Your task to perform on an android device: Do I have any events this weekend? Image 0: 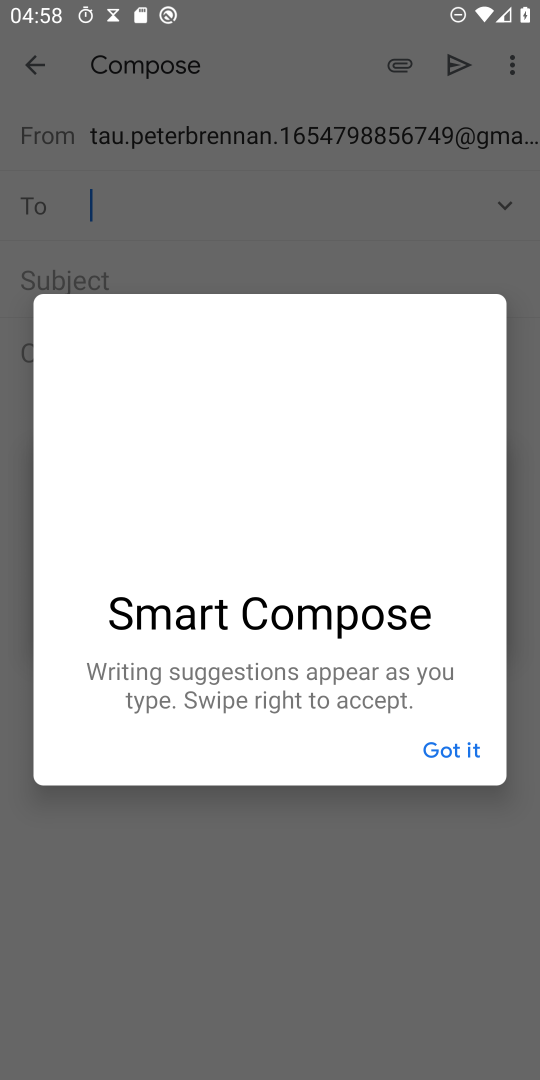
Step 0: press home button
Your task to perform on an android device: Do I have any events this weekend? Image 1: 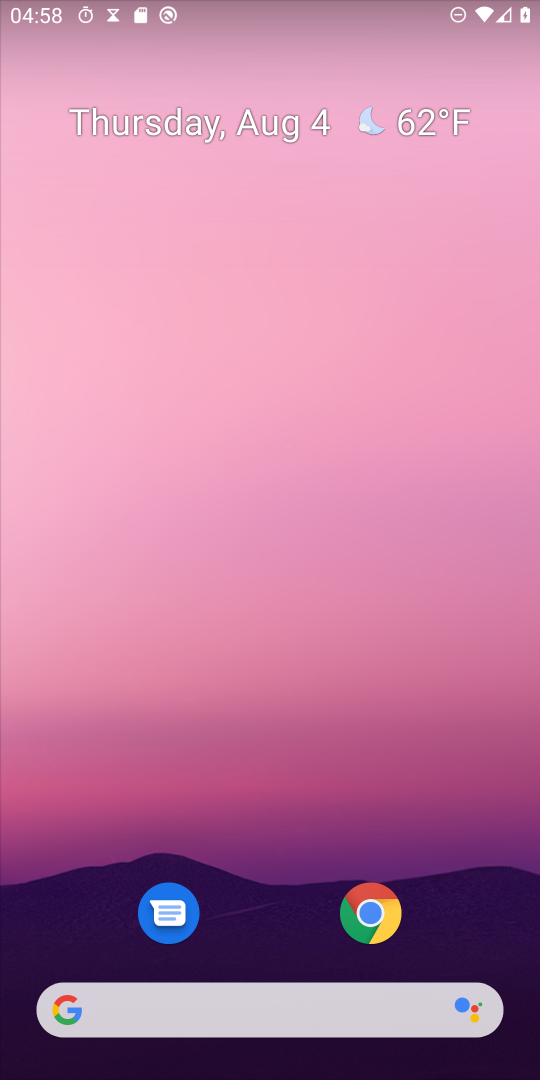
Step 1: drag from (266, 1012) to (386, 66)
Your task to perform on an android device: Do I have any events this weekend? Image 2: 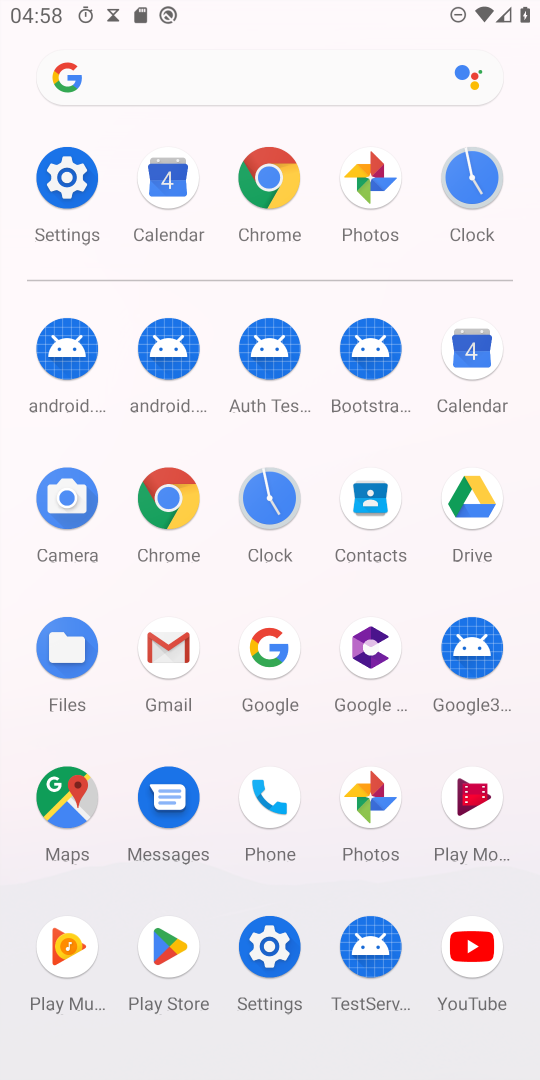
Step 2: click (473, 347)
Your task to perform on an android device: Do I have any events this weekend? Image 3: 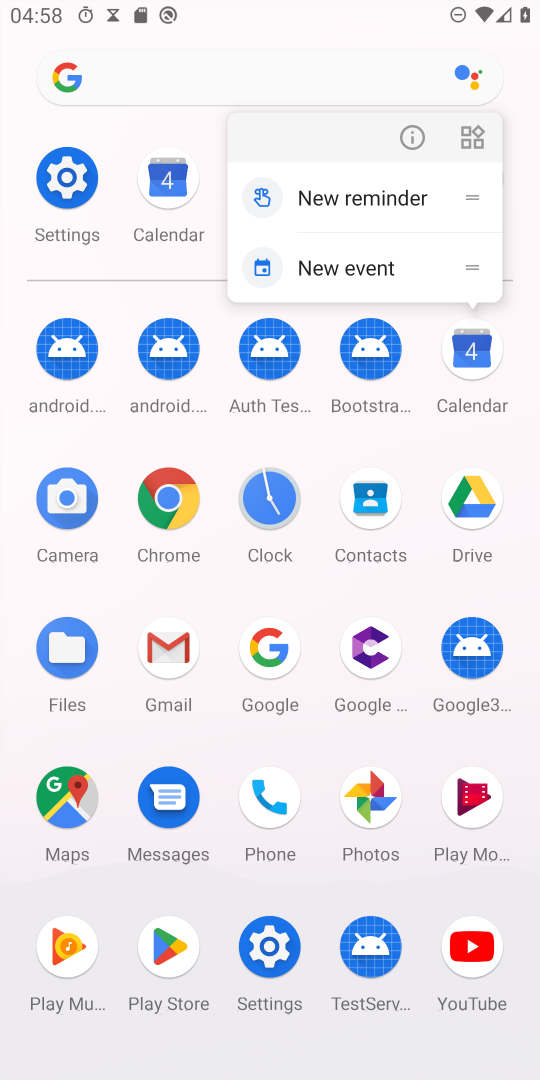
Step 3: click (473, 347)
Your task to perform on an android device: Do I have any events this weekend? Image 4: 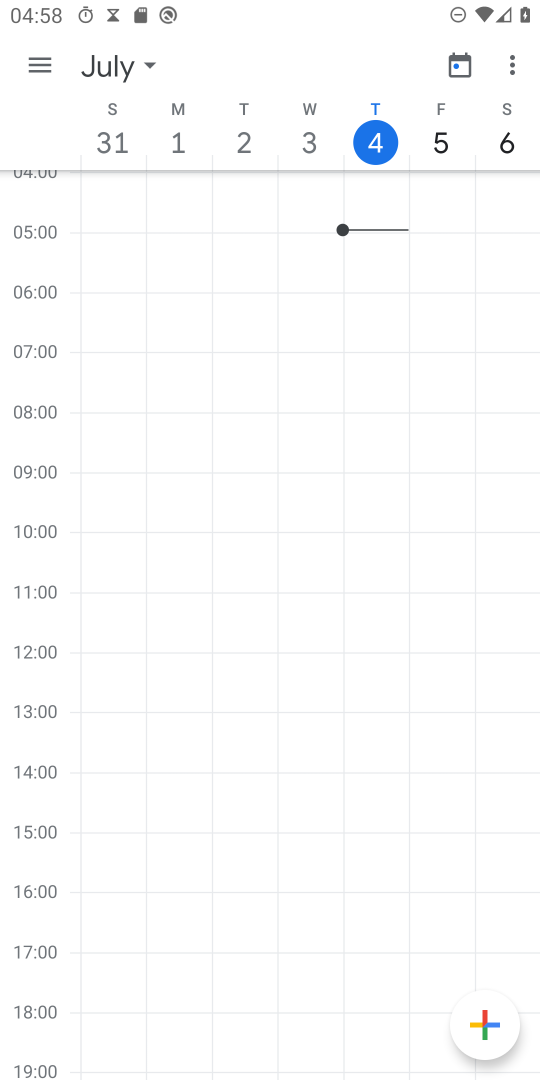
Step 4: click (148, 66)
Your task to perform on an android device: Do I have any events this weekend? Image 5: 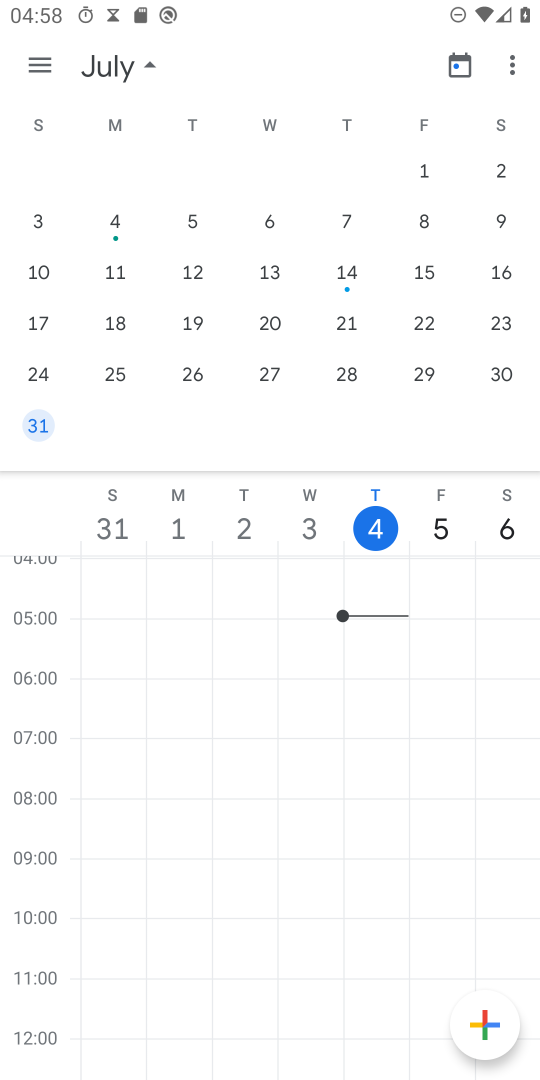
Step 5: click (497, 207)
Your task to perform on an android device: Do I have any events this weekend? Image 6: 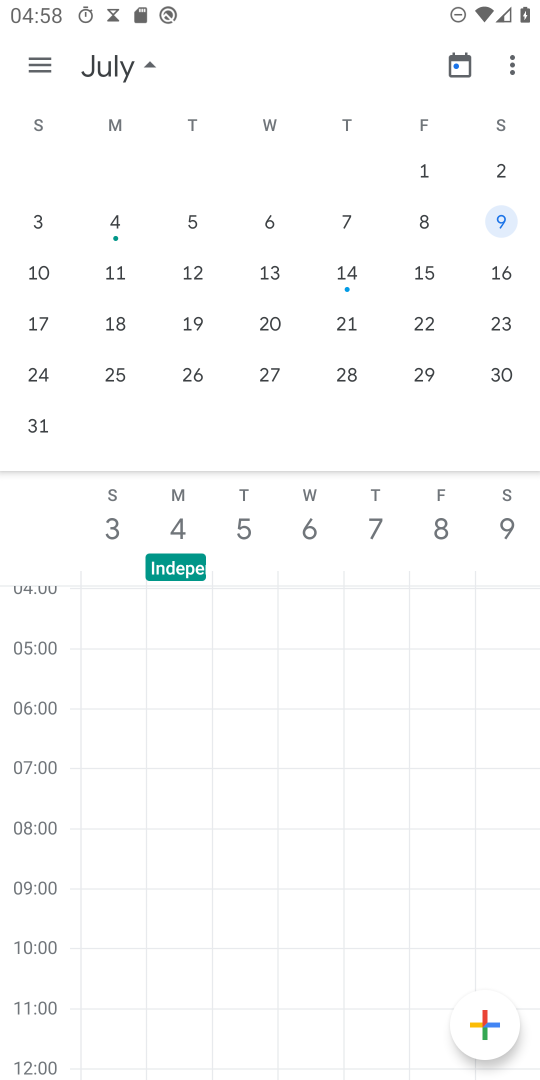
Step 6: drag from (475, 249) to (45, 237)
Your task to perform on an android device: Do I have any events this weekend? Image 7: 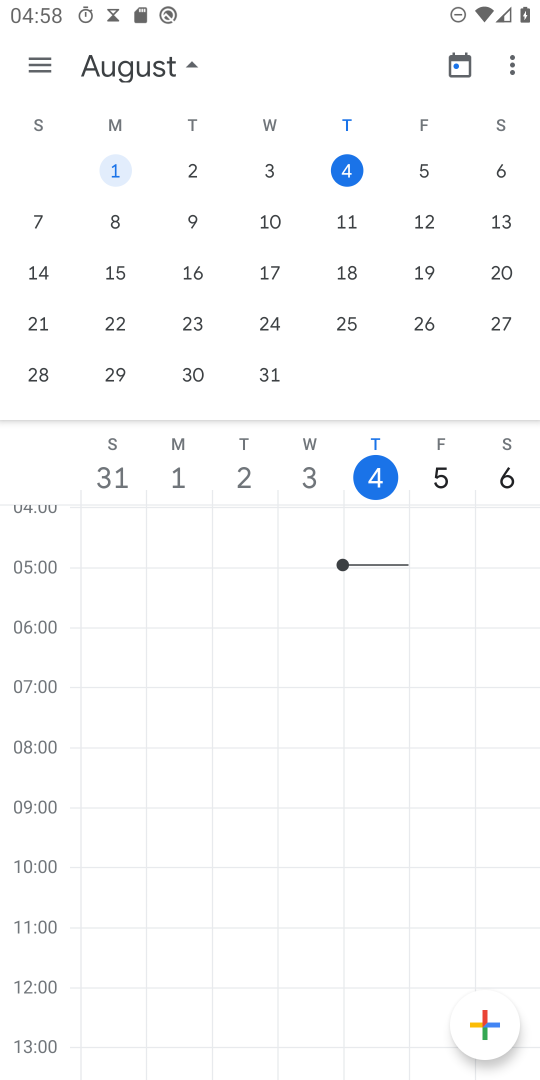
Step 7: click (488, 218)
Your task to perform on an android device: Do I have any events this weekend? Image 8: 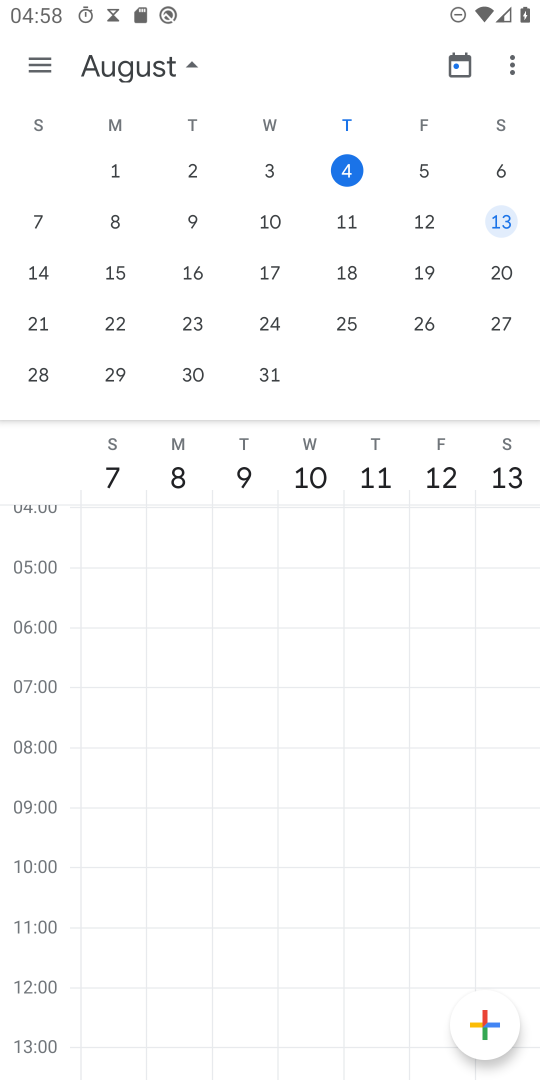
Step 8: task complete